Your task to perform on an android device: check android version Image 0: 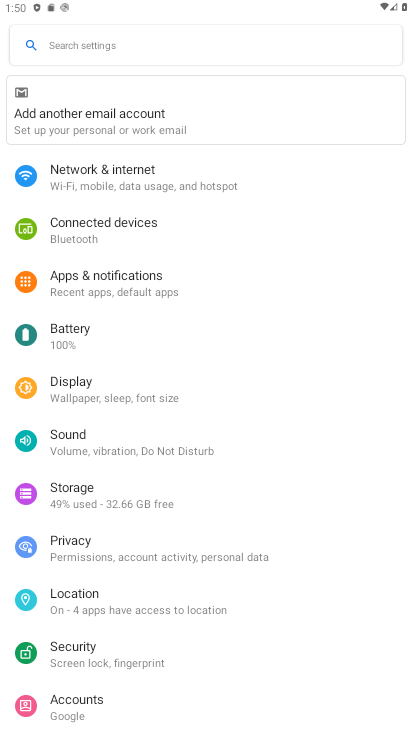
Step 0: press home button
Your task to perform on an android device: check android version Image 1: 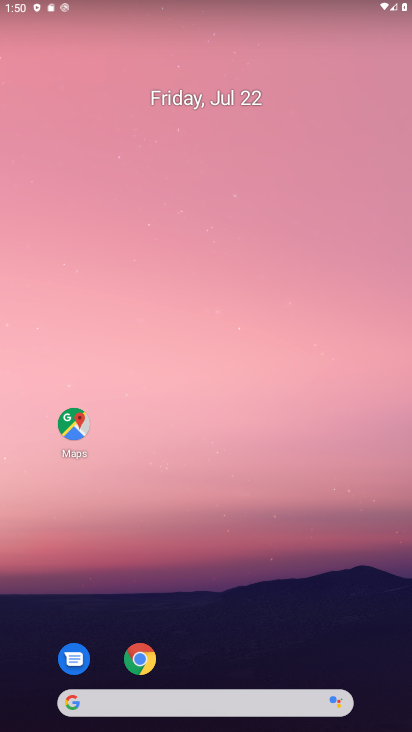
Step 1: drag from (298, 626) to (238, 96)
Your task to perform on an android device: check android version Image 2: 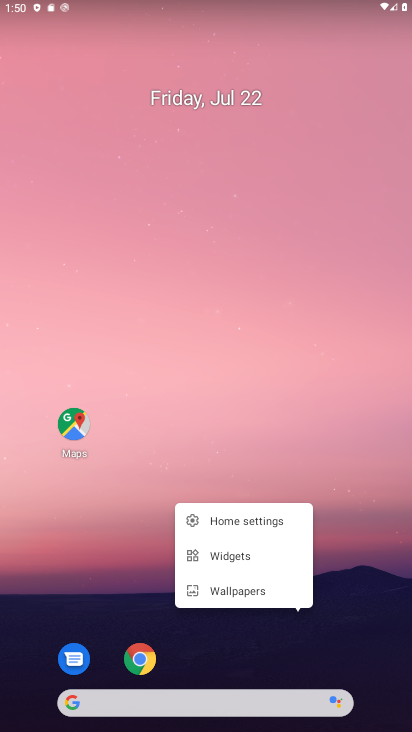
Step 2: drag from (378, 608) to (318, 215)
Your task to perform on an android device: check android version Image 3: 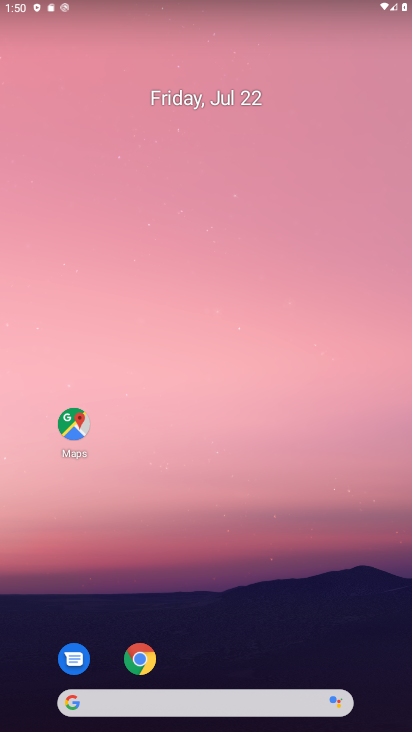
Step 3: drag from (360, 583) to (288, 54)
Your task to perform on an android device: check android version Image 4: 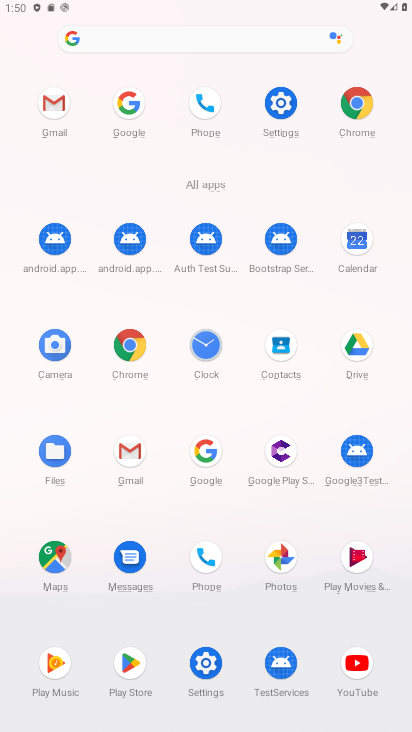
Step 4: click (207, 649)
Your task to perform on an android device: check android version Image 5: 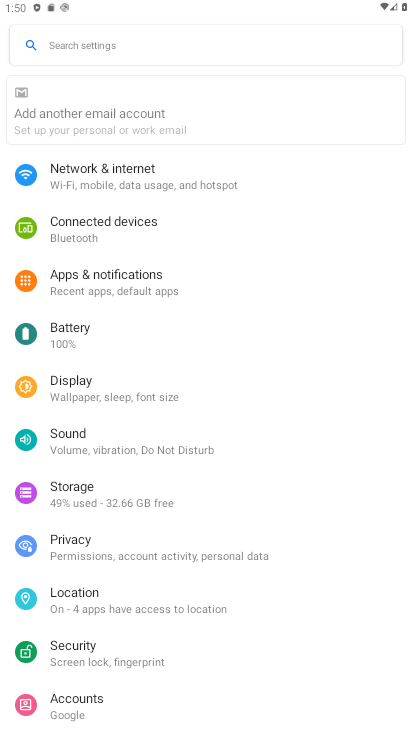
Step 5: drag from (238, 654) to (159, 187)
Your task to perform on an android device: check android version Image 6: 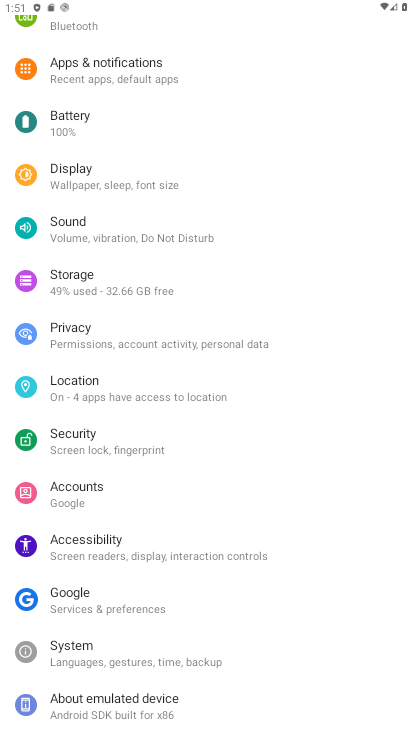
Step 6: click (136, 704)
Your task to perform on an android device: check android version Image 7: 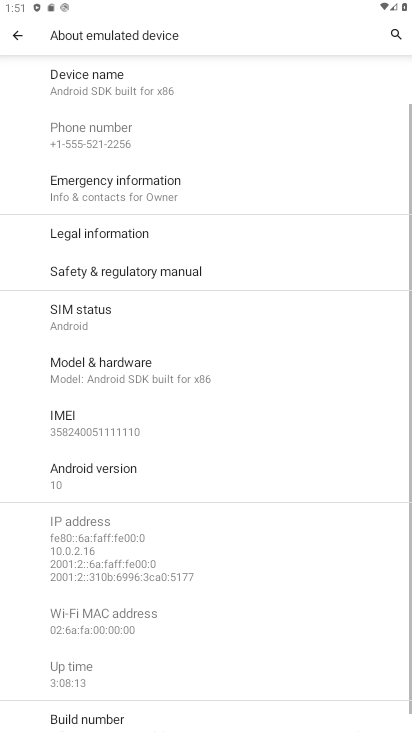
Step 7: click (117, 485)
Your task to perform on an android device: check android version Image 8: 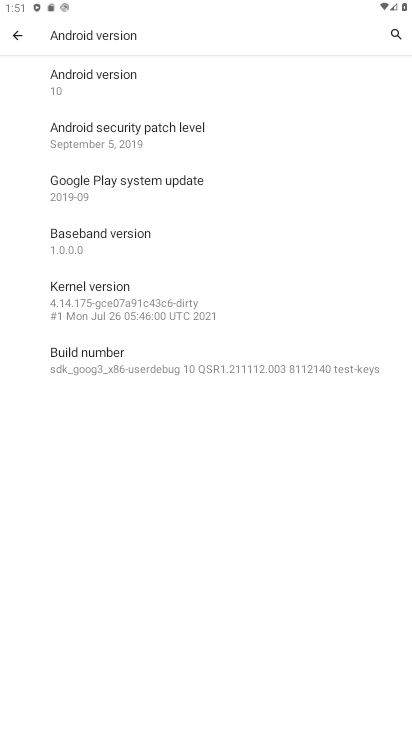
Step 8: task complete